Your task to perform on an android device: set the stopwatch Image 0: 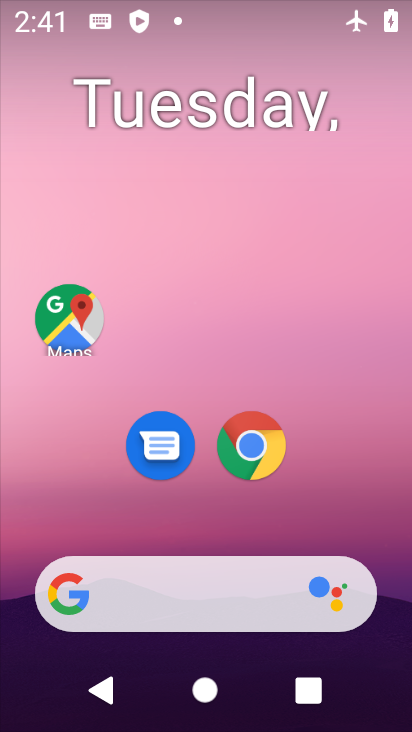
Step 0: drag from (347, 486) to (258, 117)
Your task to perform on an android device: set the stopwatch Image 1: 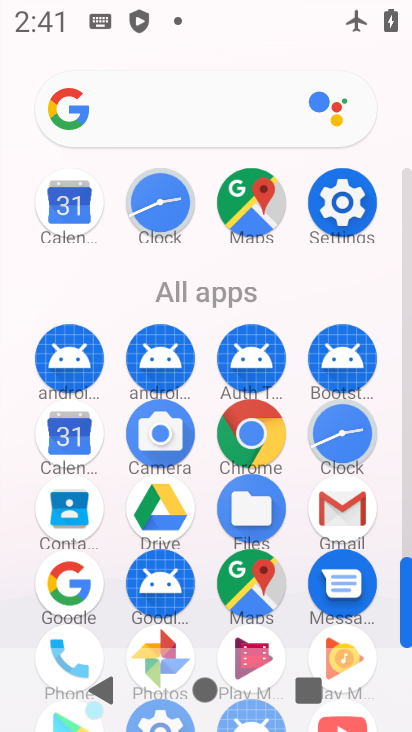
Step 1: click (334, 452)
Your task to perform on an android device: set the stopwatch Image 2: 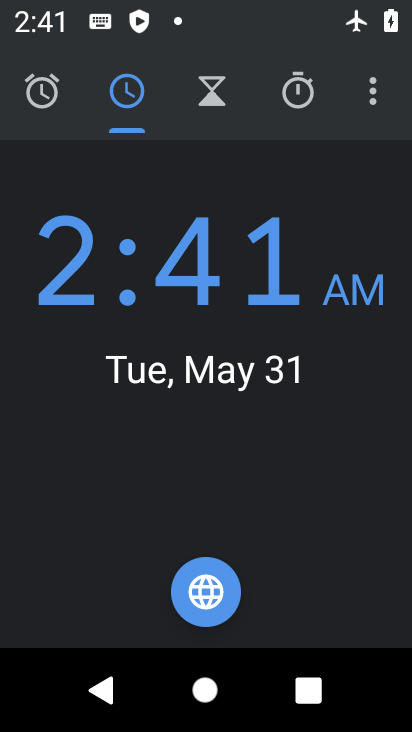
Step 2: click (302, 106)
Your task to perform on an android device: set the stopwatch Image 3: 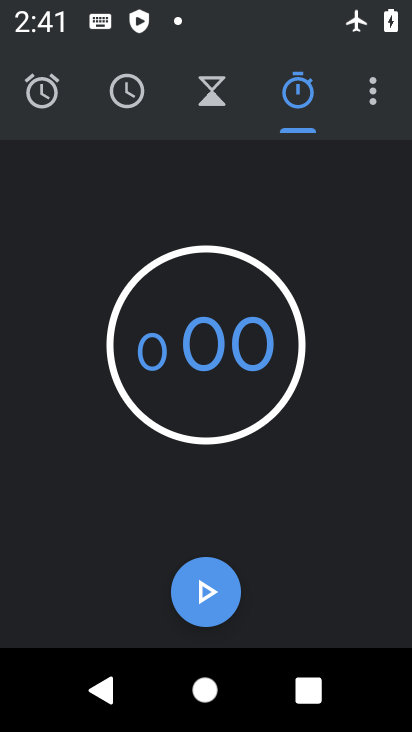
Step 3: click (208, 601)
Your task to perform on an android device: set the stopwatch Image 4: 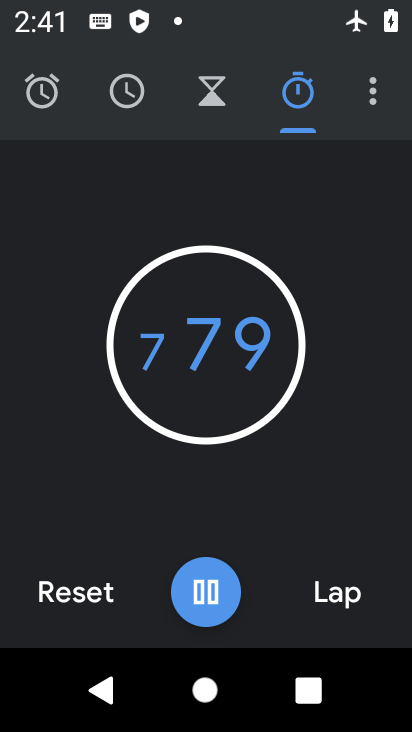
Step 4: task complete